Your task to perform on an android device: Open Youtube and go to "Your channel" Image 0: 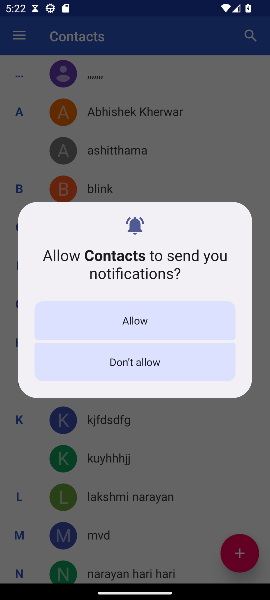
Step 0: press home button
Your task to perform on an android device: Open Youtube and go to "Your channel" Image 1: 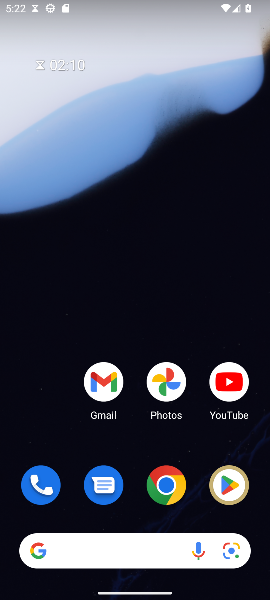
Step 1: drag from (127, 502) to (119, 39)
Your task to perform on an android device: Open Youtube and go to "Your channel" Image 2: 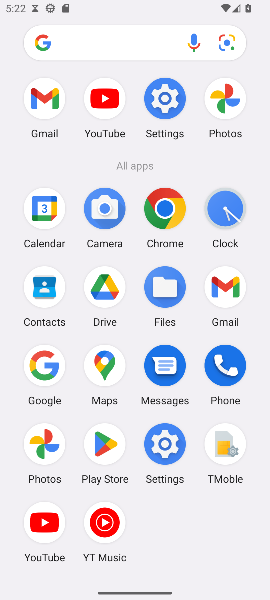
Step 2: click (51, 529)
Your task to perform on an android device: Open Youtube and go to "Your channel" Image 3: 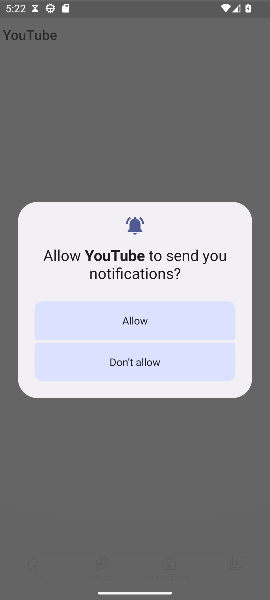
Step 3: click (158, 319)
Your task to perform on an android device: Open Youtube and go to "Your channel" Image 4: 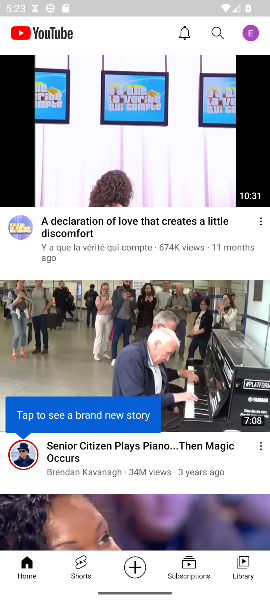
Step 4: click (250, 29)
Your task to perform on an android device: Open Youtube and go to "Your channel" Image 5: 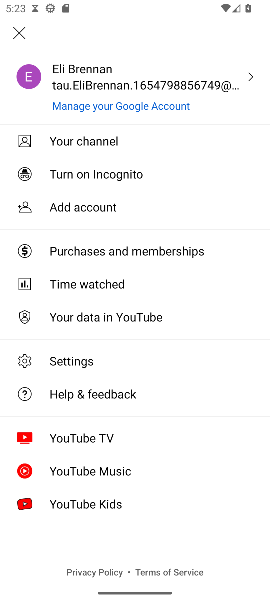
Step 5: click (116, 144)
Your task to perform on an android device: Open Youtube and go to "Your channel" Image 6: 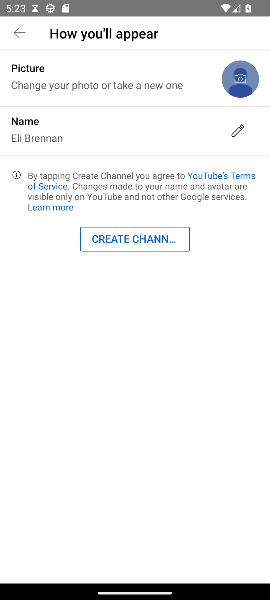
Step 6: task complete